Your task to perform on an android device: open app "Roku - Official Remote Control" (install if not already installed), go to login, and select forgot password Image 0: 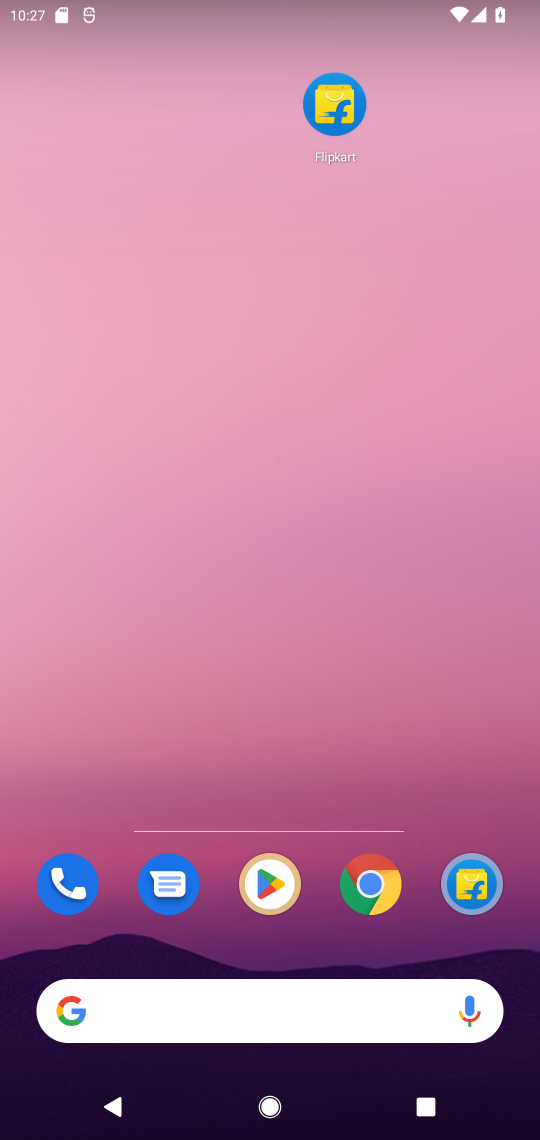
Step 0: press home button
Your task to perform on an android device: open app "Roku - Official Remote Control" (install if not already installed), go to login, and select forgot password Image 1: 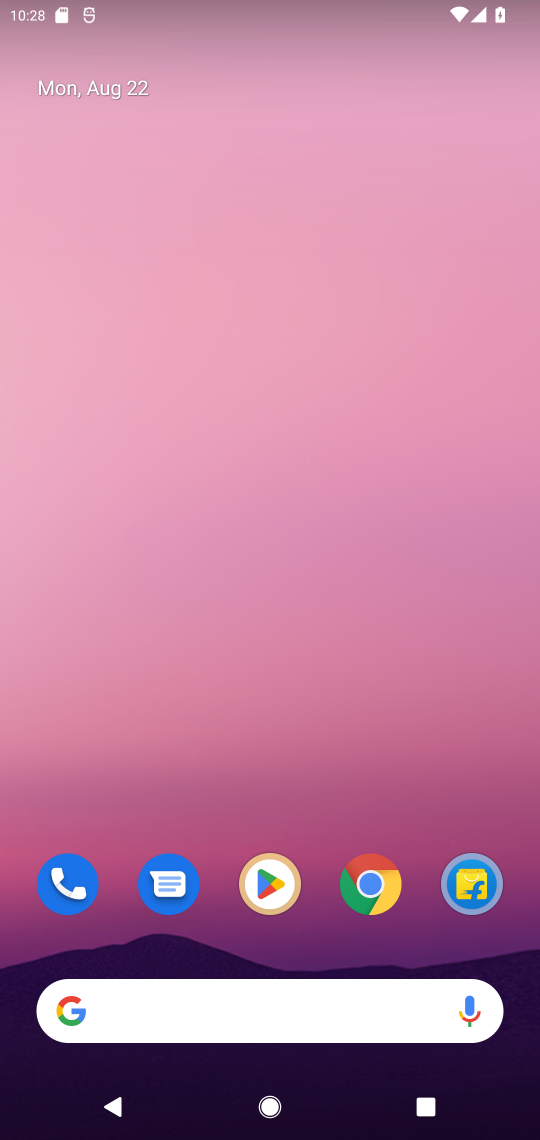
Step 1: click (261, 881)
Your task to perform on an android device: open app "Roku - Official Remote Control" (install if not already installed), go to login, and select forgot password Image 2: 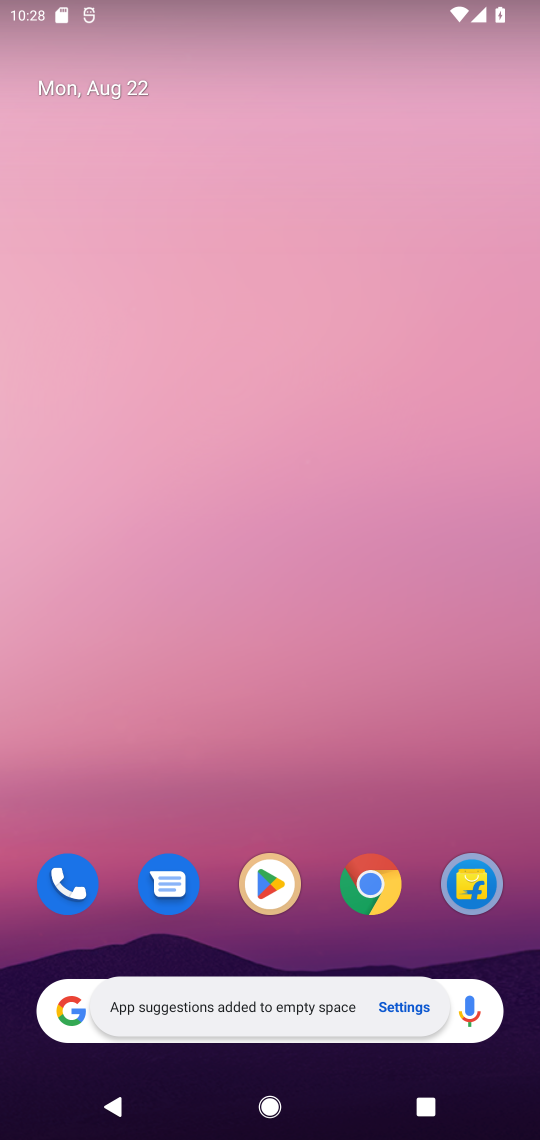
Step 2: click (274, 868)
Your task to perform on an android device: open app "Roku - Official Remote Control" (install if not already installed), go to login, and select forgot password Image 3: 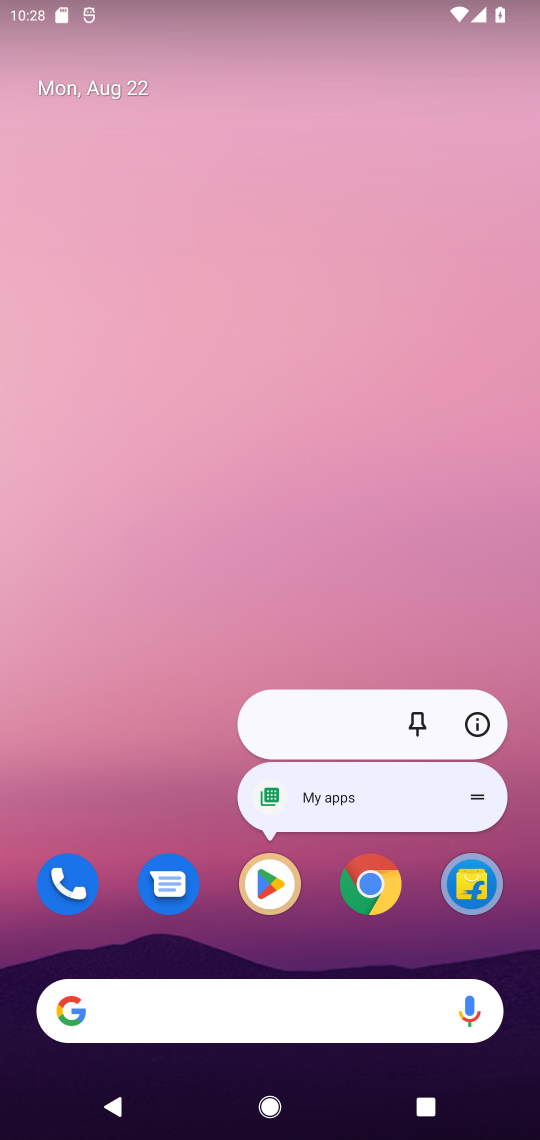
Step 3: click (267, 878)
Your task to perform on an android device: open app "Roku - Official Remote Control" (install if not already installed), go to login, and select forgot password Image 4: 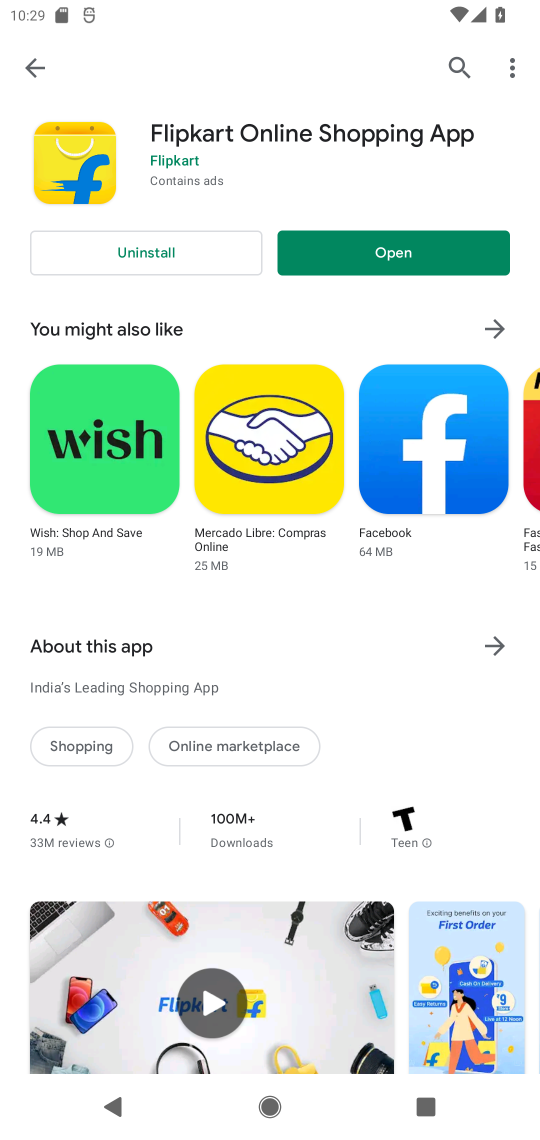
Step 4: click (441, 58)
Your task to perform on an android device: open app "Roku - Official Remote Control" (install if not already installed), go to login, and select forgot password Image 5: 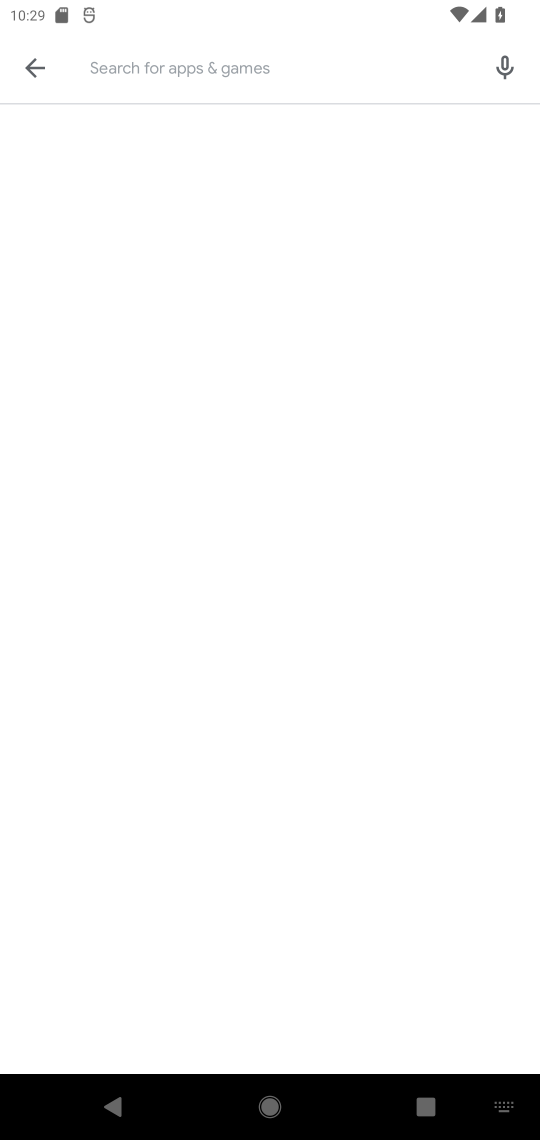
Step 5: type "Roku - Official Remote Control"
Your task to perform on an android device: open app "Roku - Official Remote Control" (install if not already installed), go to login, and select forgot password Image 6: 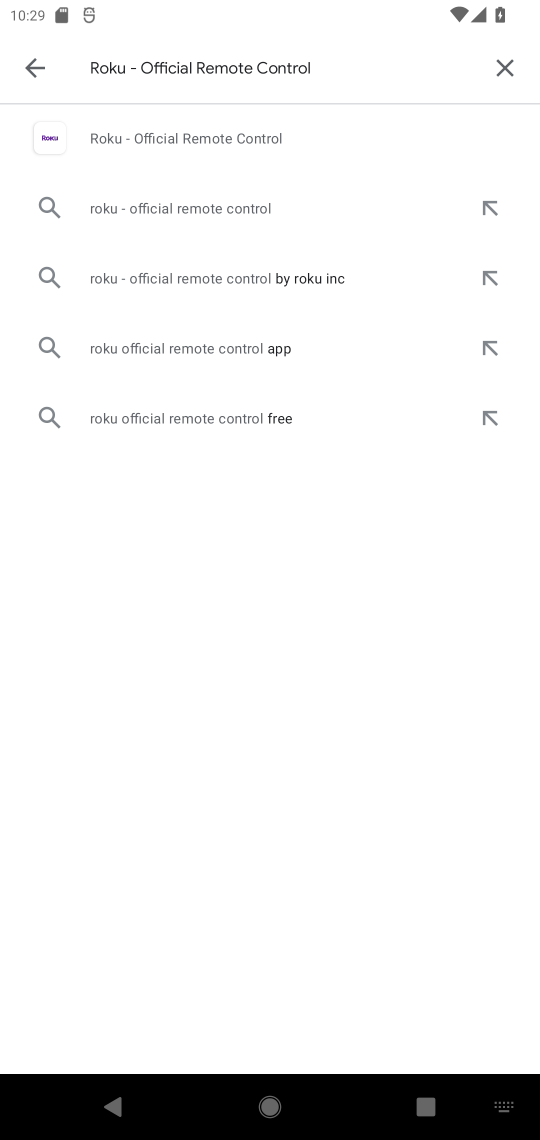
Step 6: click (246, 135)
Your task to perform on an android device: open app "Roku - Official Remote Control" (install if not already installed), go to login, and select forgot password Image 7: 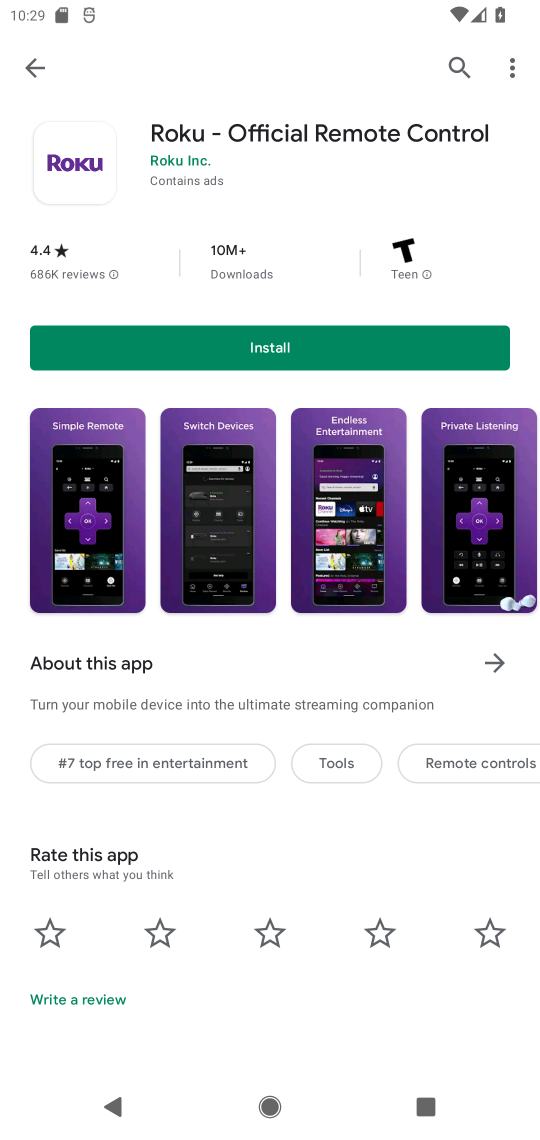
Step 7: click (265, 345)
Your task to perform on an android device: open app "Roku - Official Remote Control" (install if not already installed), go to login, and select forgot password Image 8: 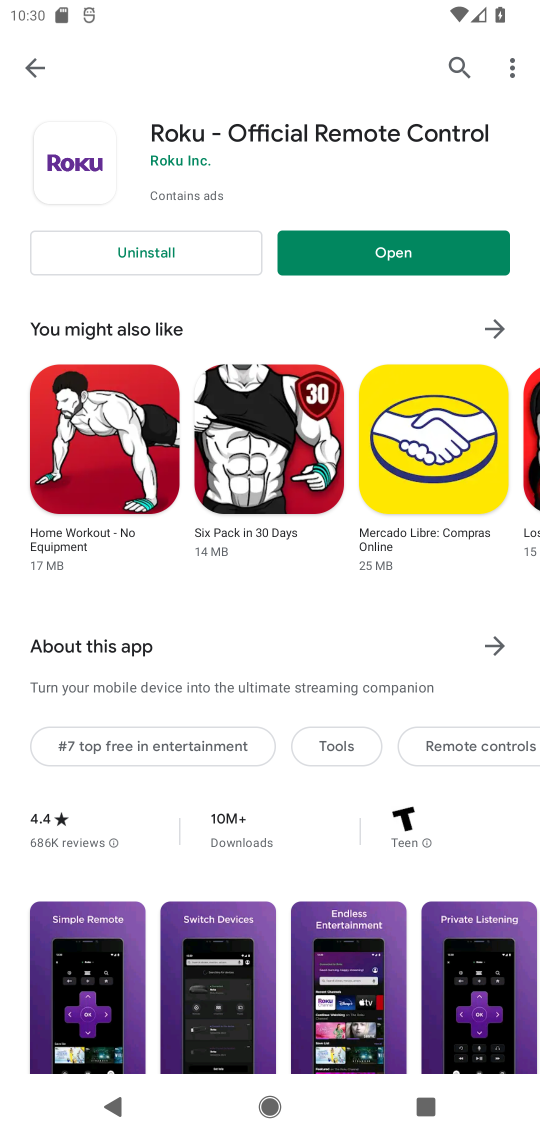
Step 8: click (372, 255)
Your task to perform on an android device: open app "Roku - Official Remote Control" (install if not already installed), go to login, and select forgot password Image 9: 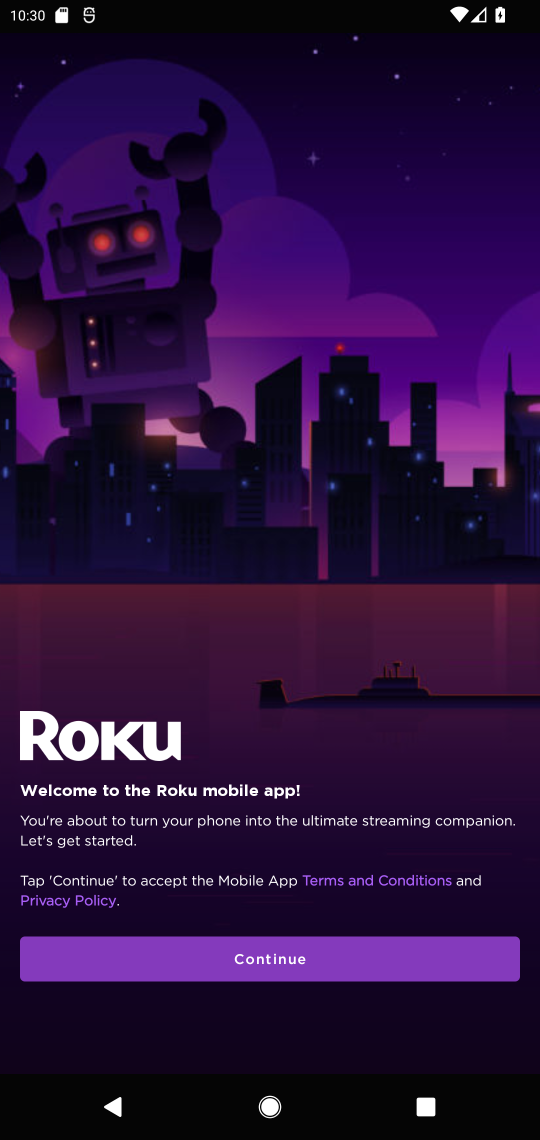
Step 9: click (277, 958)
Your task to perform on an android device: open app "Roku - Official Remote Control" (install if not already installed), go to login, and select forgot password Image 10: 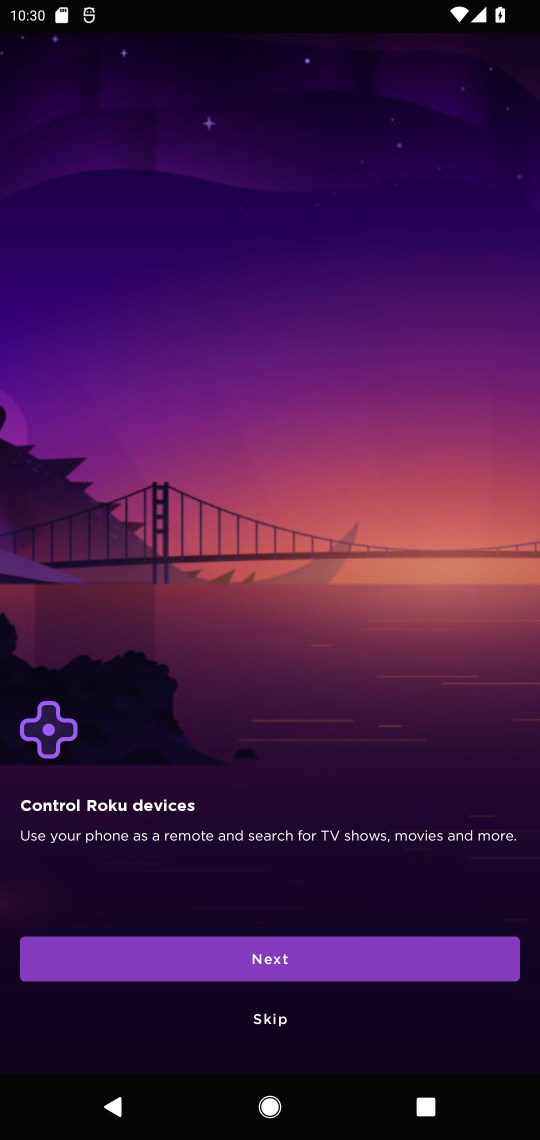
Step 10: click (270, 1023)
Your task to perform on an android device: open app "Roku - Official Remote Control" (install if not already installed), go to login, and select forgot password Image 11: 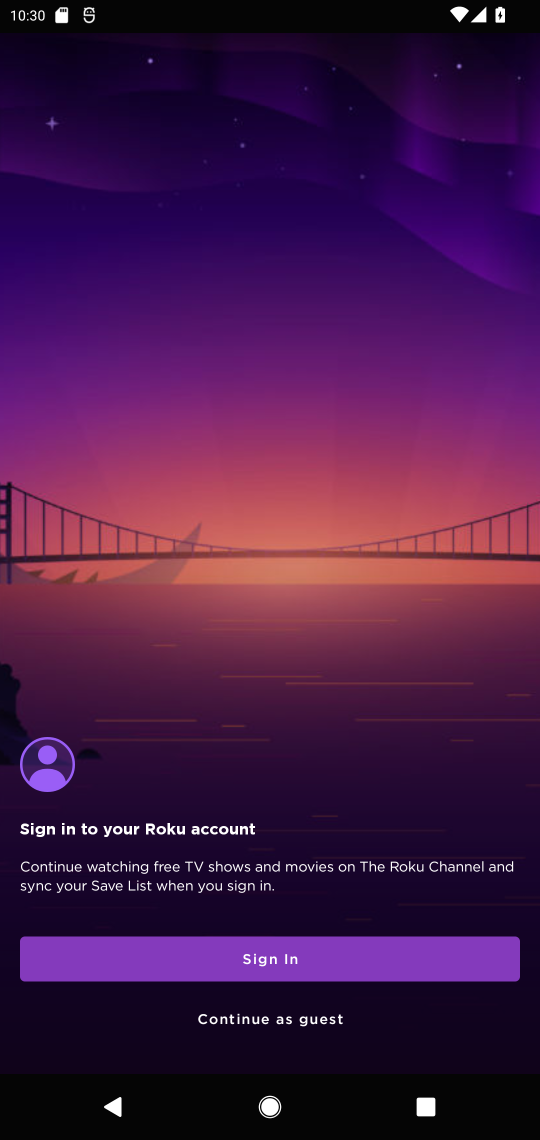
Step 11: click (278, 965)
Your task to perform on an android device: open app "Roku - Official Remote Control" (install if not already installed), go to login, and select forgot password Image 12: 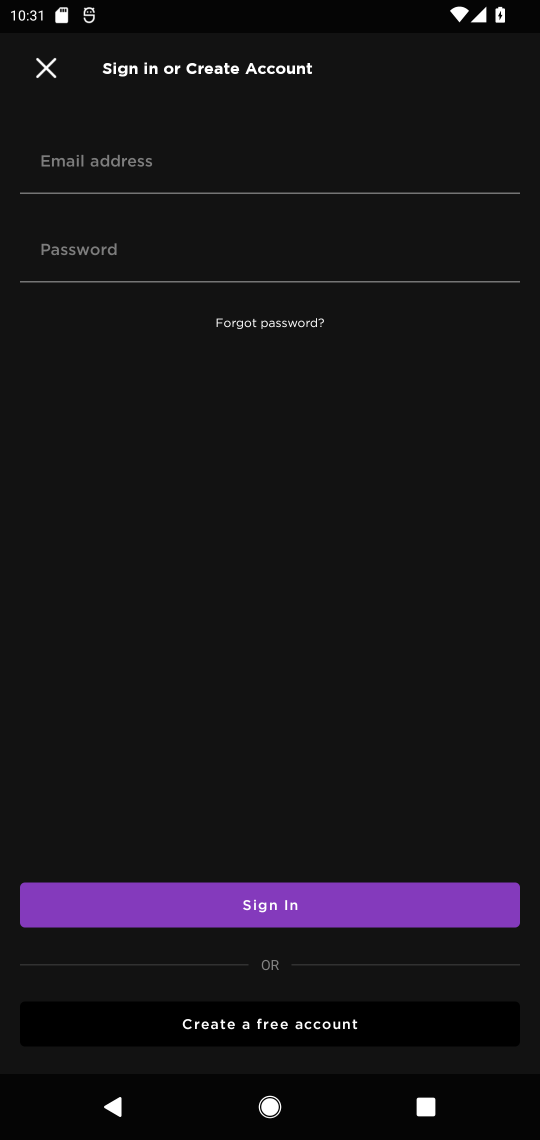
Step 12: task complete